Your task to perform on an android device: open wifi settings Image 0: 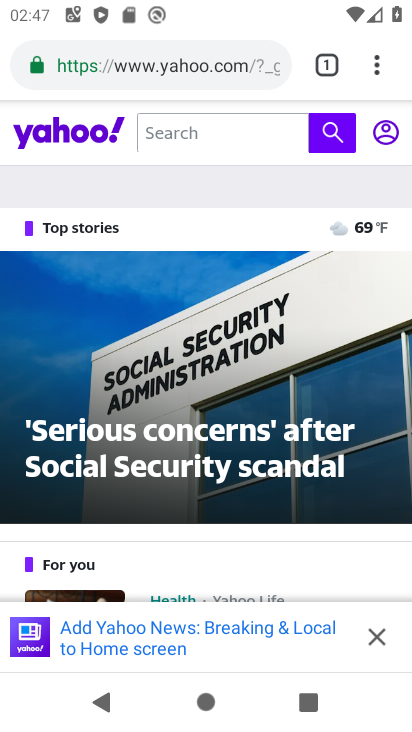
Step 0: press back button
Your task to perform on an android device: open wifi settings Image 1: 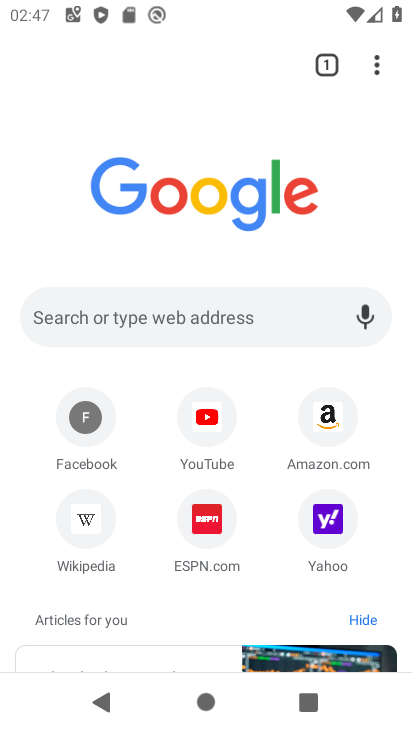
Step 1: press back button
Your task to perform on an android device: open wifi settings Image 2: 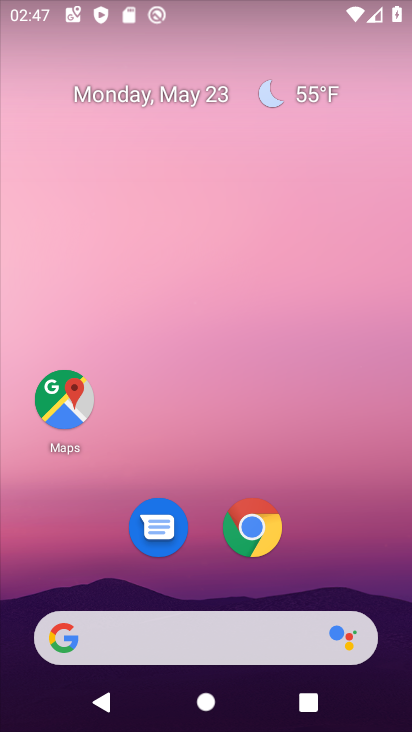
Step 2: drag from (300, 442) to (272, 43)
Your task to perform on an android device: open wifi settings Image 3: 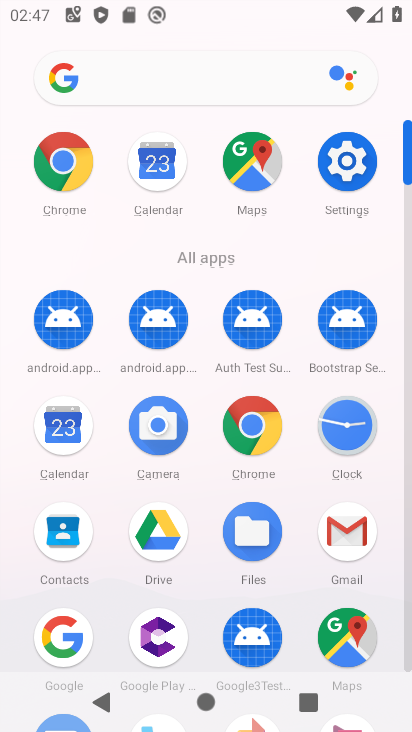
Step 3: click (349, 157)
Your task to perform on an android device: open wifi settings Image 4: 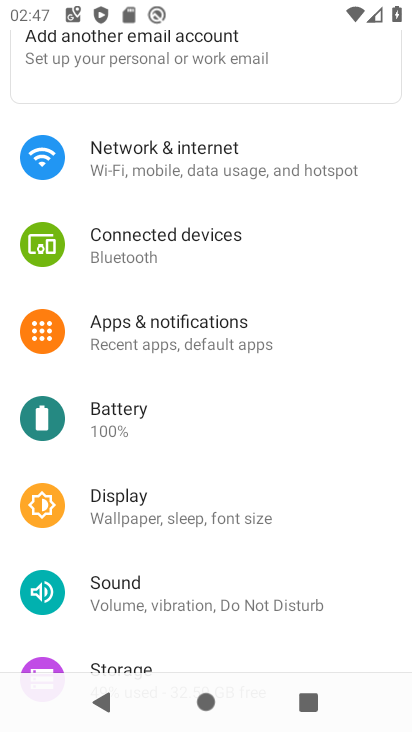
Step 4: drag from (246, 481) to (243, 108)
Your task to perform on an android device: open wifi settings Image 5: 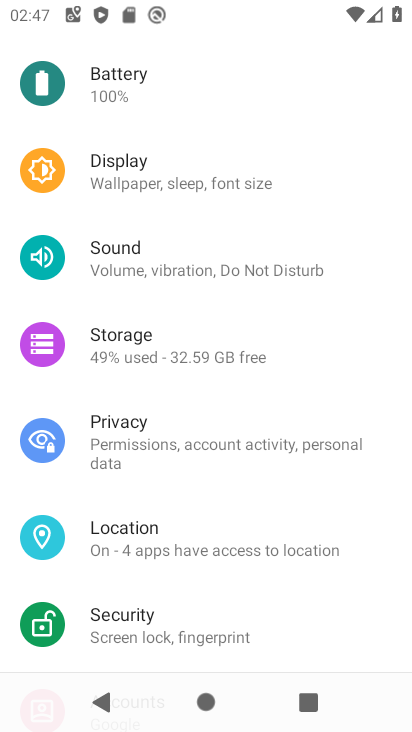
Step 5: drag from (199, 522) to (217, 89)
Your task to perform on an android device: open wifi settings Image 6: 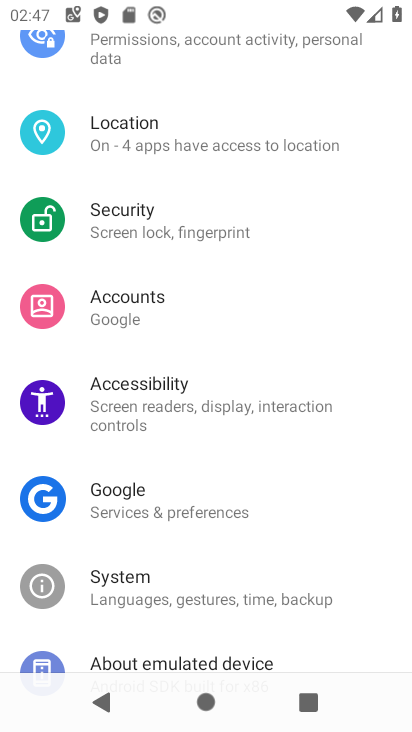
Step 6: drag from (193, 567) to (213, 153)
Your task to perform on an android device: open wifi settings Image 7: 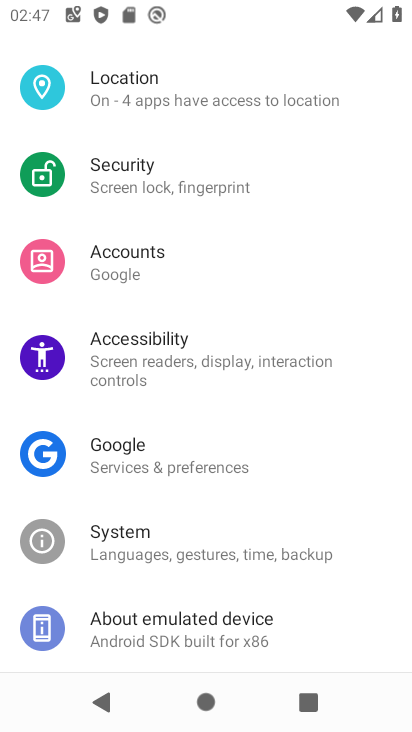
Step 7: drag from (219, 621) to (258, 199)
Your task to perform on an android device: open wifi settings Image 8: 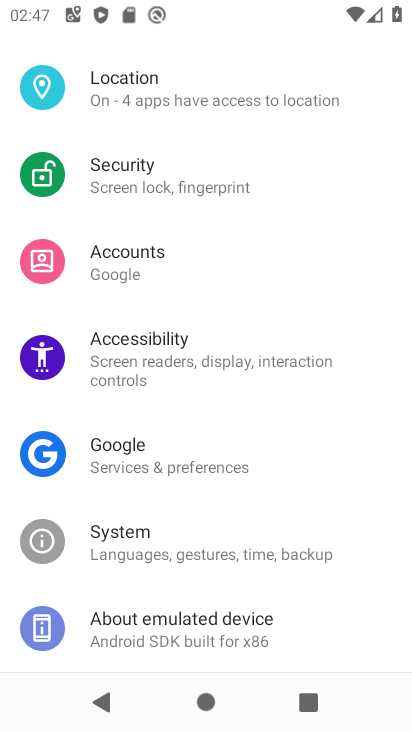
Step 8: drag from (260, 197) to (217, 661)
Your task to perform on an android device: open wifi settings Image 9: 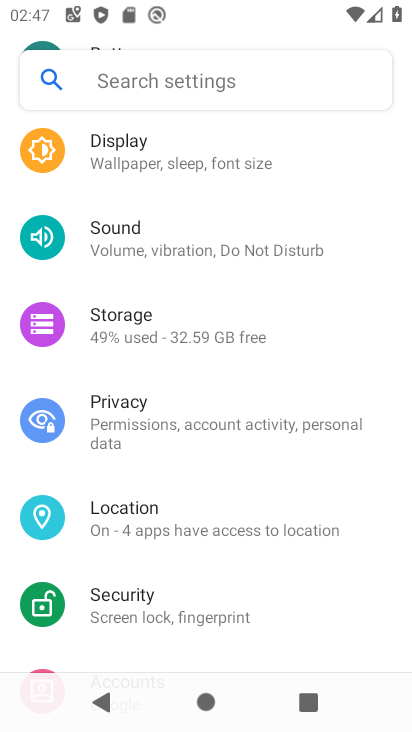
Step 9: drag from (207, 201) to (201, 606)
Your task to perform on an android device: open wifi settings Image 10: 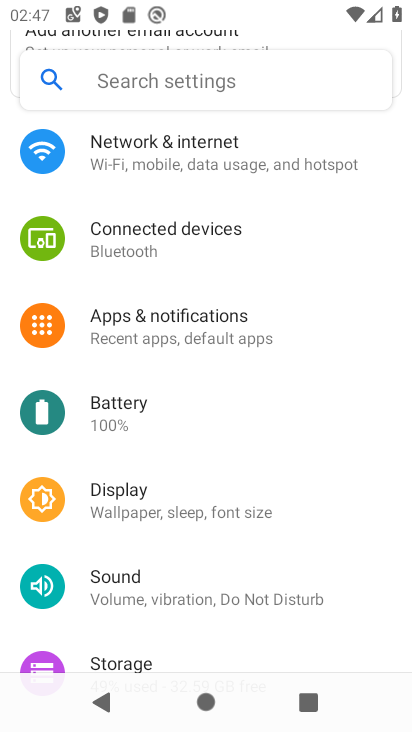
Step 10: drag from (231, 210) to (199, 588)
Your task to perform on an android device: open wifi settings Image 11: 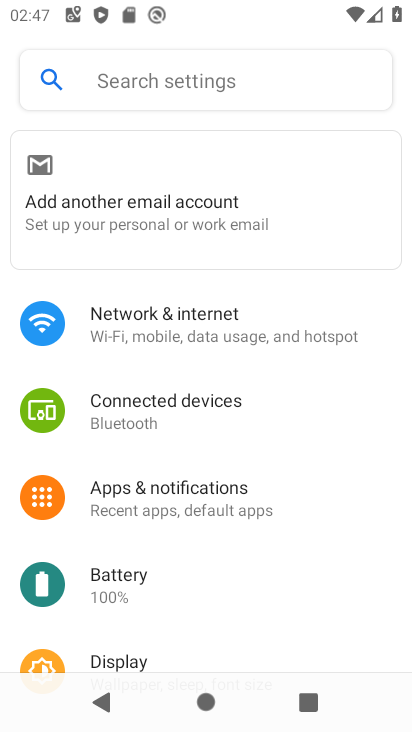
Step 11: click (174, 328)
Your task to perform on an android device: open wifi settings Image 12: 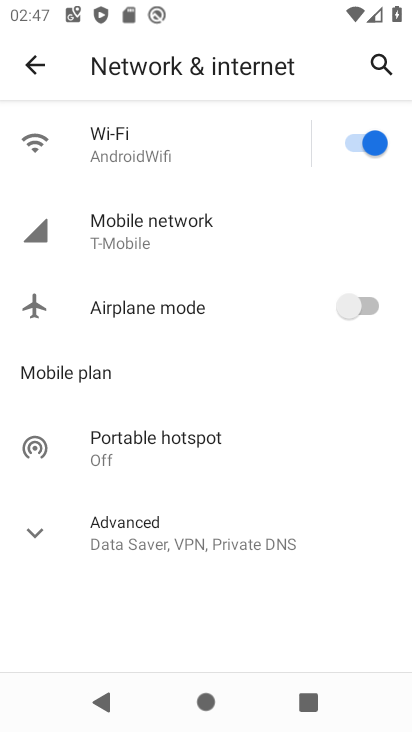
Step 12: click (47, 534)
Your task to perform on an android device: open wifi settings Image 13: 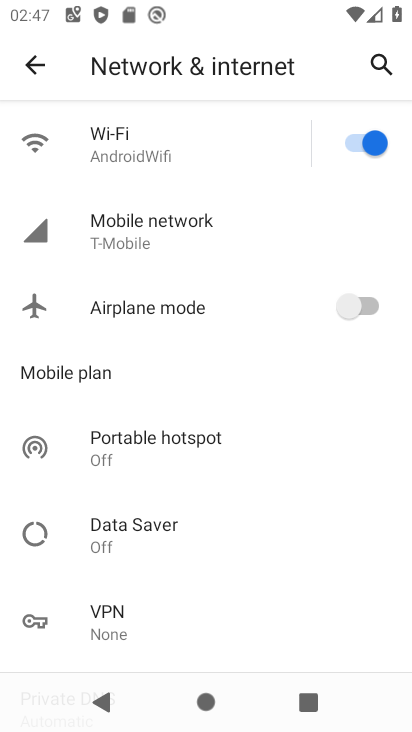
Step 13: click (127, 142)
Your task to perform on an android device: open wifi settings Image 14: 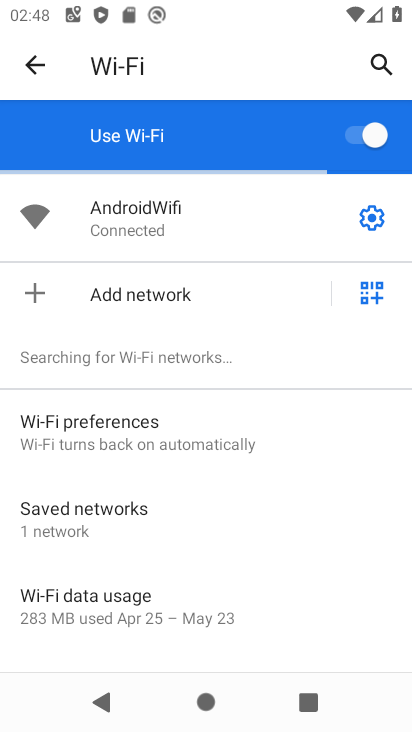
Step 14: task complete